Your task to perform on an android device: add a label to a message in the gmail app Image 0: 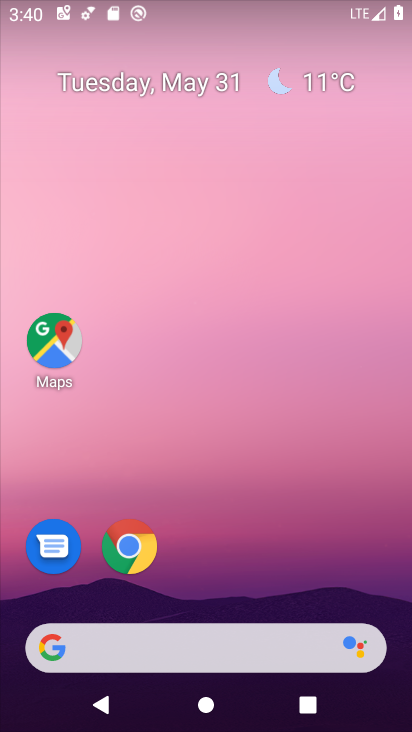
Step 0: drag from (280, 264) to (162, 0)
Your task to perform on an android device: add a label to a message in the gmail app Image 1: 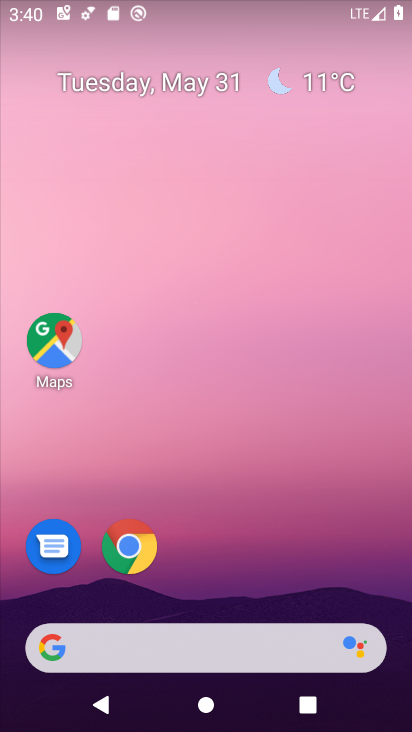
Step 1: drag from (270, 594) to (88, 69)
Your task to perform on an android device: add a label to a message in the gmail app Image 2: 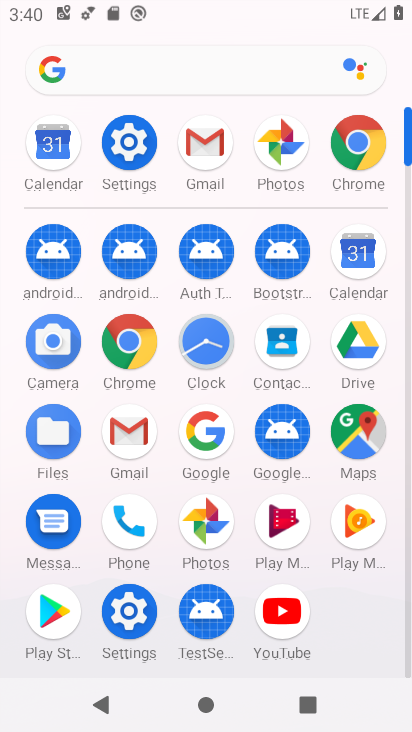
Step 2: click (130, 428)
Your task to perform on an android device: add a label to a message in the gmail app Image 3: 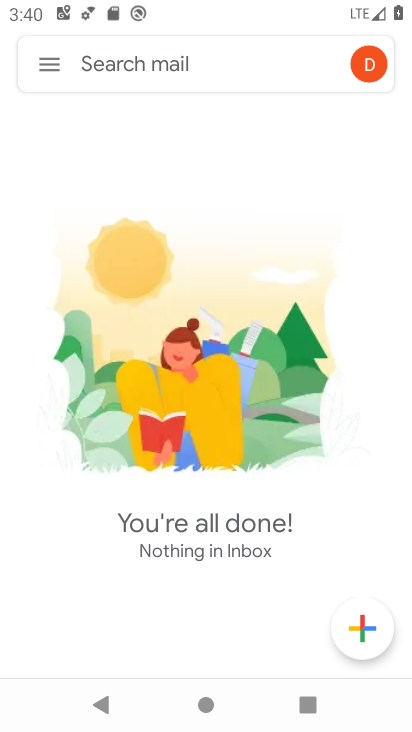
Step 3: click (52, 68)
Your task to perform on an android device: add a label to a message in the gmail app Image 4: 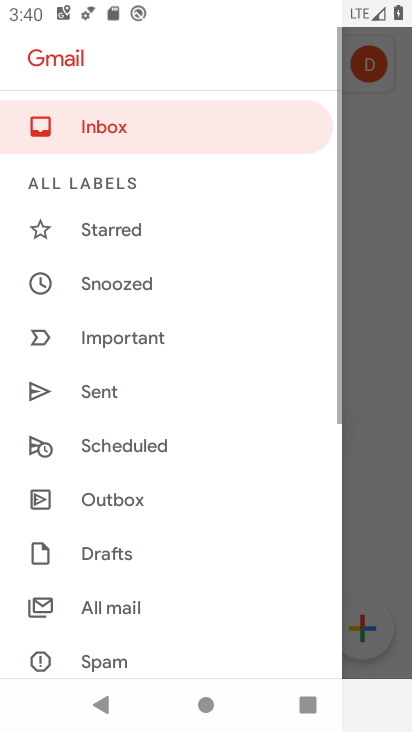
Step 4: click (136, 124)
Your task to perform on an android device: add a label to a message in the gmail app Image 5: 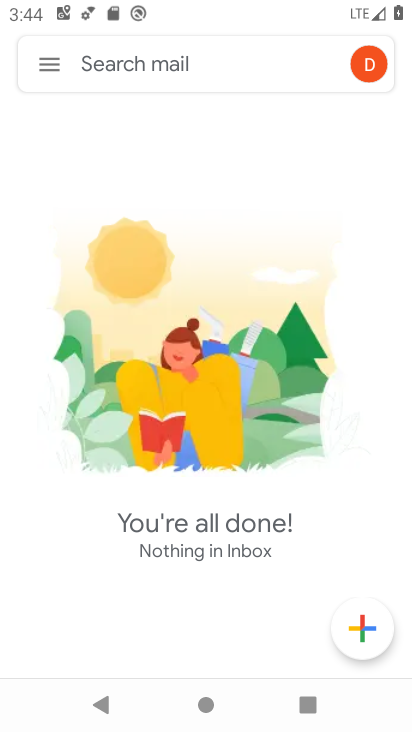
Step 5: task complete